Your task to perform on an android device: empty trash in google photos Image 0: 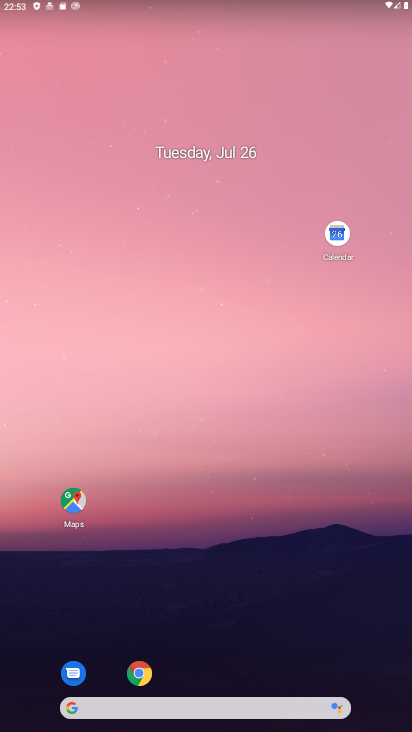
Step 0: drag from (252, 634) to (196, 292)
Your task to perform on an android device: empty trash in google photos Image 1: 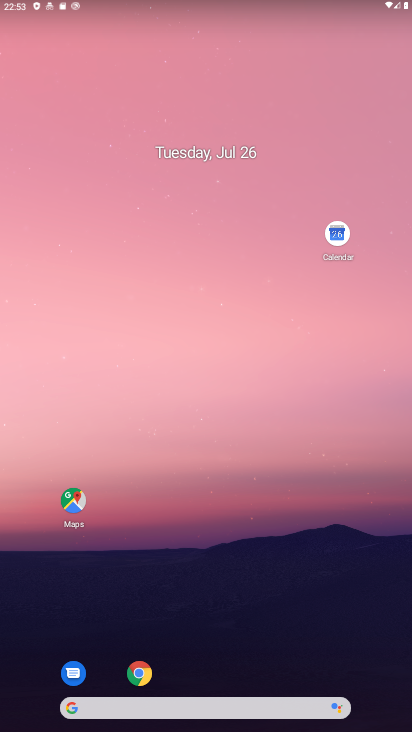
Step 1: drag from (285, 602) to (276, 226)
Your task to perform on an android device: empty trash in google photos Image 2: 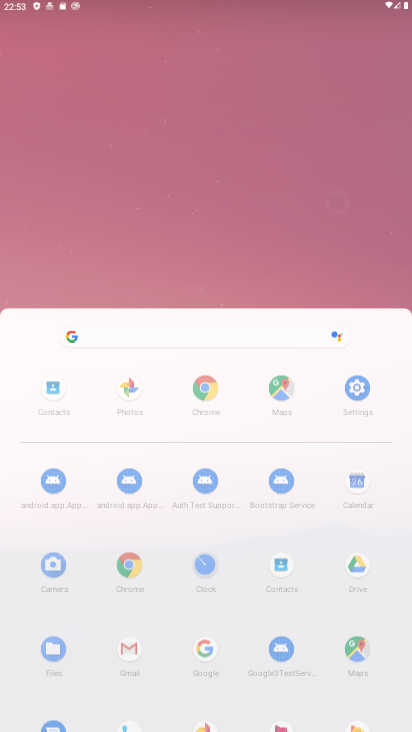
Step 2: drag from (325, 498) to (321, 238)
Your task to perform on an android device: empty trash in google photos Image 3: 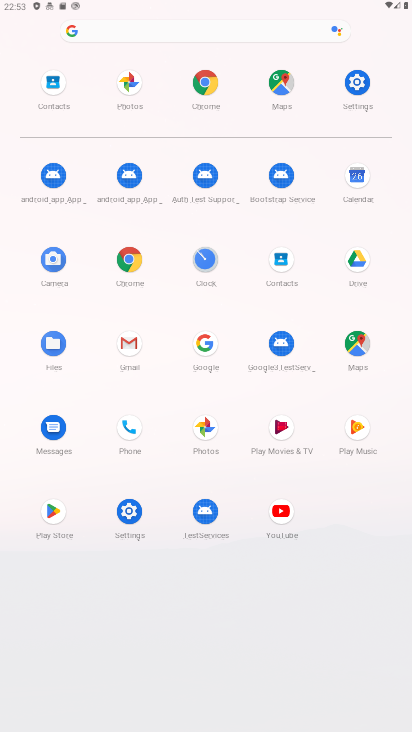
Step 3: click (201, 421)
Your task to perform on an android device: empty trash in google photos Image 4: 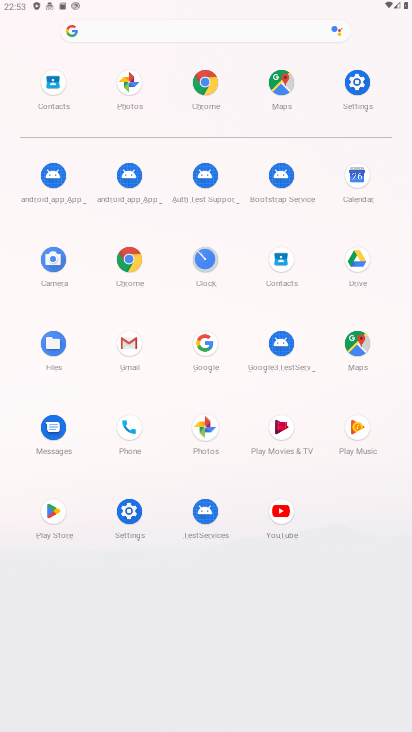
Step 4: click (200, 424)
Your task to perform on an android device: empty trash in google photos Image 5: 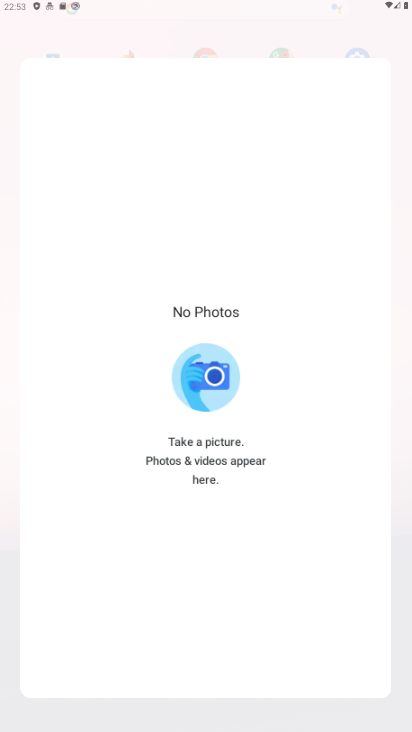
Step 5: click (203, 424)
Your task to perform on an android device: empty trash in google photos Image 6: 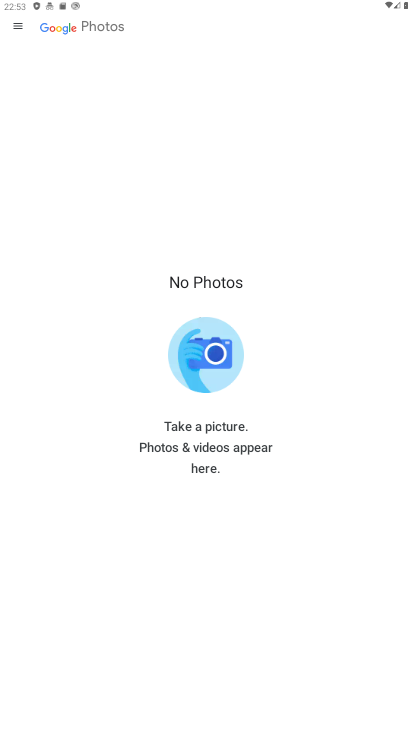
Step 6: click (25, 25)
Your task to perform on an android device: empty trash in google photos Image 7: 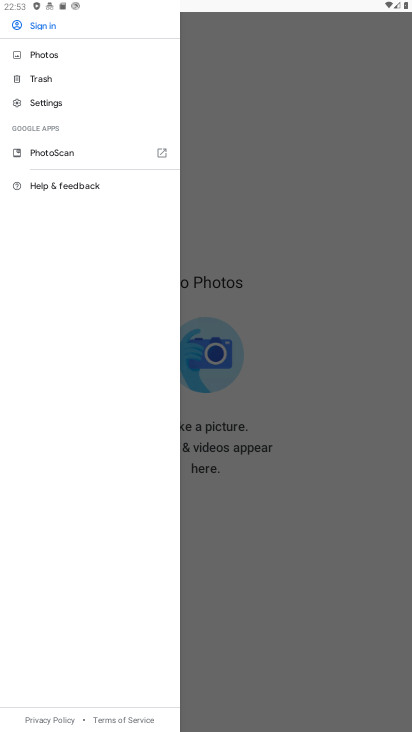
Step 7: click (43, 77)
Your task to perform on an android device: empty trash in google photos Image 8: 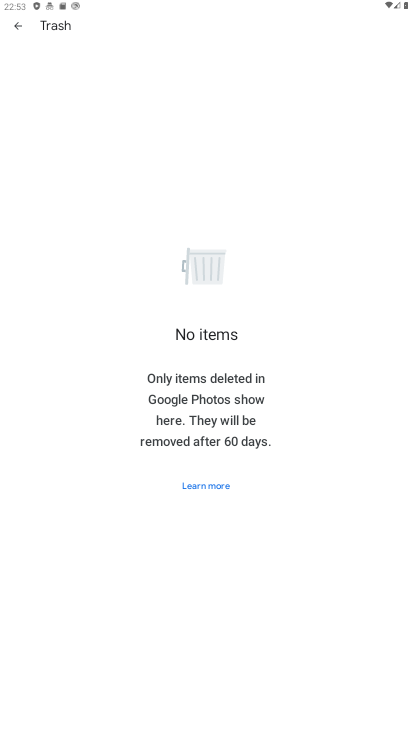
Step 8: task complete